Your task to perform on an android device: Open location settings Image 0: 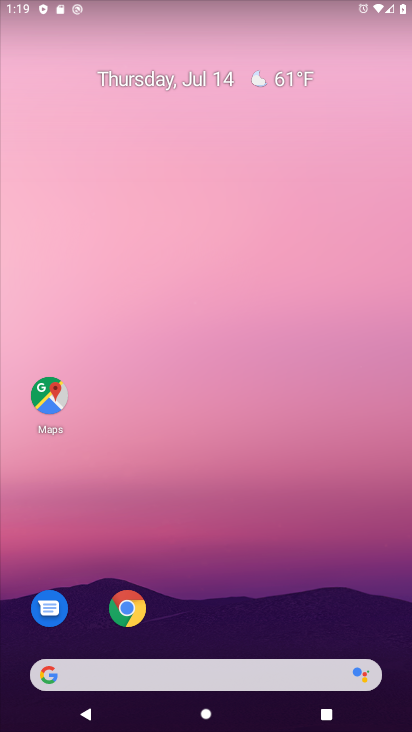
Step 0: drag from (245, 678) to (202, 289)
Your task to perform on an android device: Open location settings Image 1: 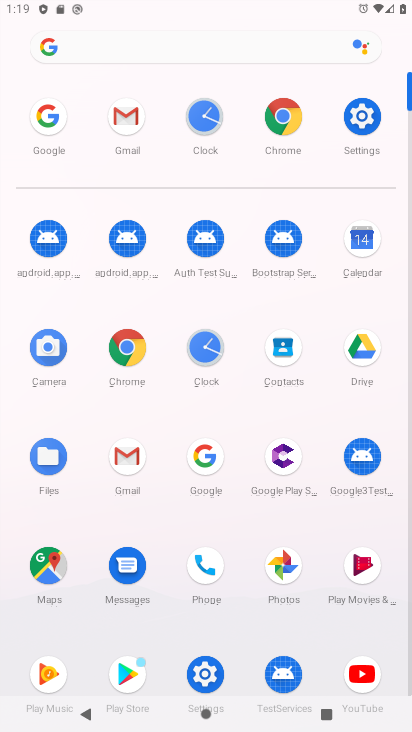
Step 1: click (347, 122)
Your task to perform on an android device: Open location settings Image 2: 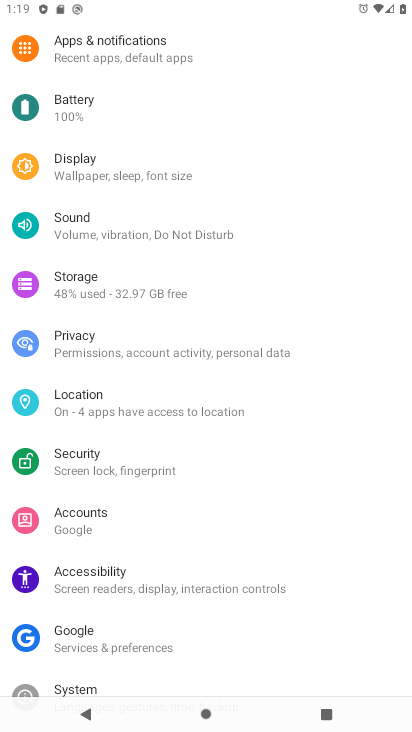
Step 2: drag from (74, 650) to (74, 373)
Your task to perform on an android device: Open location settings Image 3: 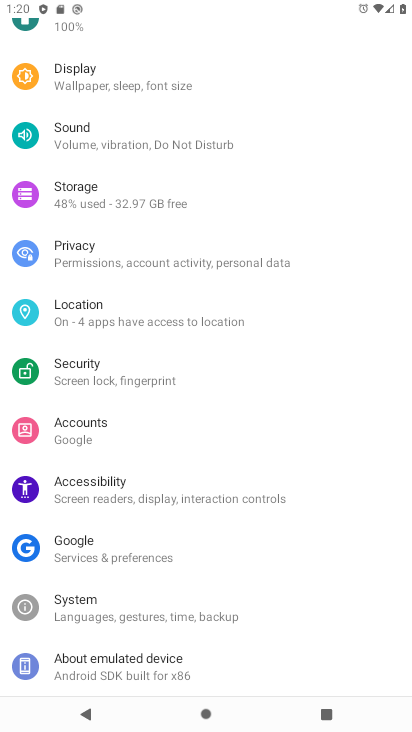
Step 3: click (83, 315)
Your task to perform on an android device: Open location settings Image 4: 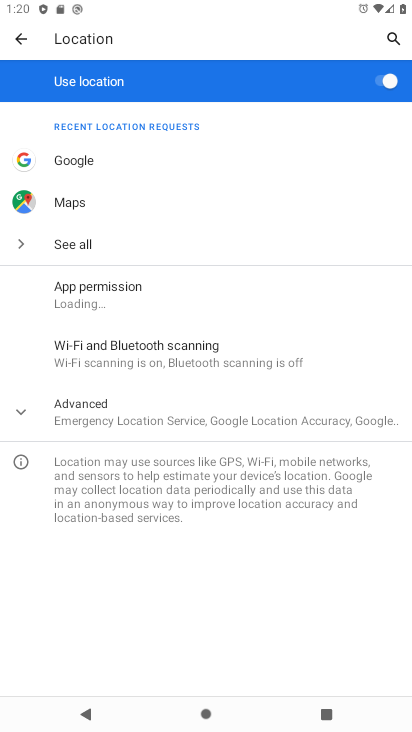
Step 4: click (86, 415)
Your task to perform on an android device: Open location settings Image 5: 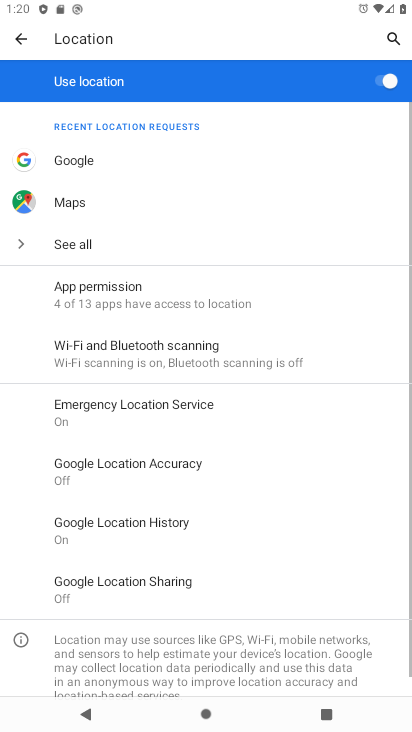
Step 5: task complete